Your task to perform on an android device: Open calendar and show me the second week of next month Image 0: 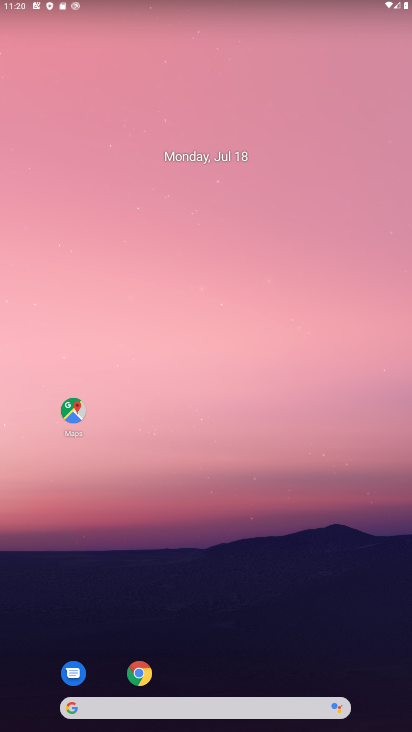
Step 0: press home button
Your task to perform on an android device: Open calendar and show me the second week of next month Image 1: 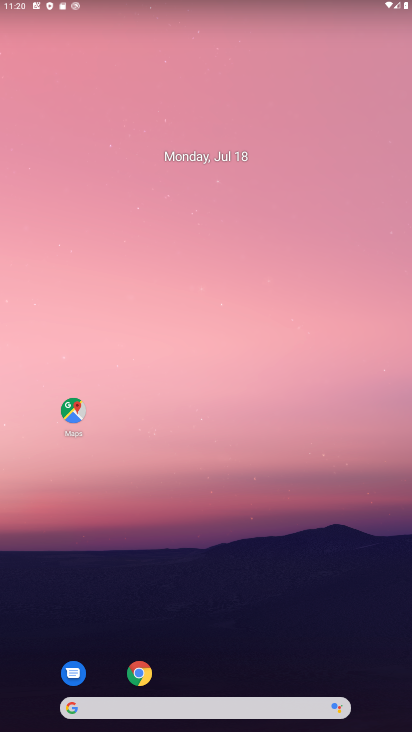
Step 1: task complete